Your task to perform on an android device: Go to Wikipedia Image 0: 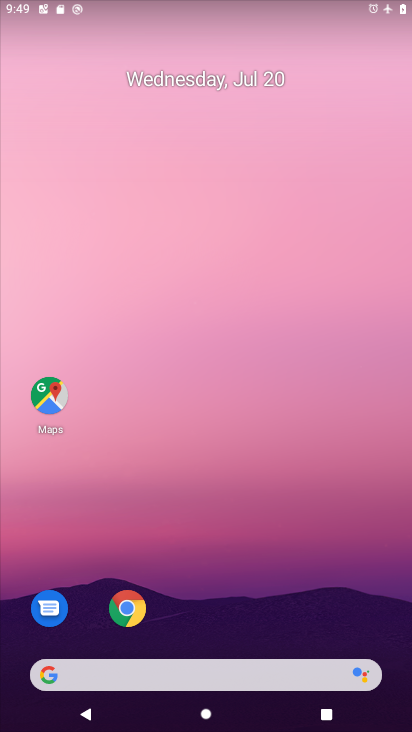
Step 0: click (122, 618)
Your task to perform on an android device: Go to Wikipedia Image 1: 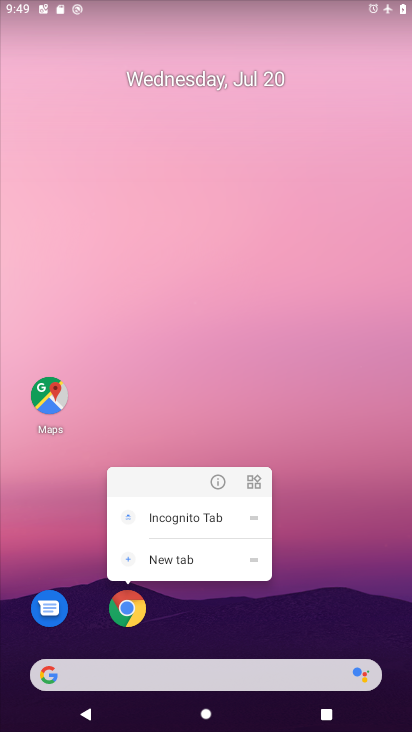
Step 1: click (126, 613)
Your task to perform on an android device: Go to Wikipedia Image 2: 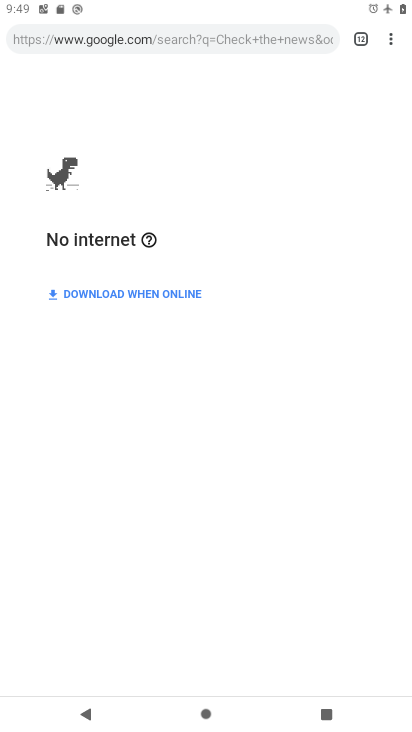
Step 2: click (410, 33)
Your task to perform on an android device: Go to Wikipedia Image 3: 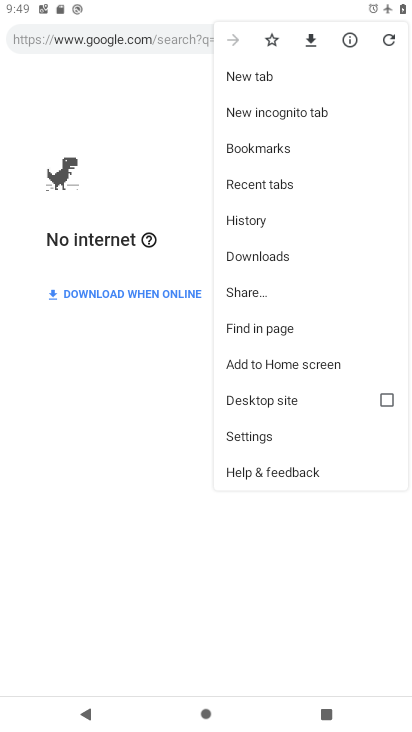
Step 3: click (285, 62)
Your task to perform on an android device: Go to Wikipedia Image 4: 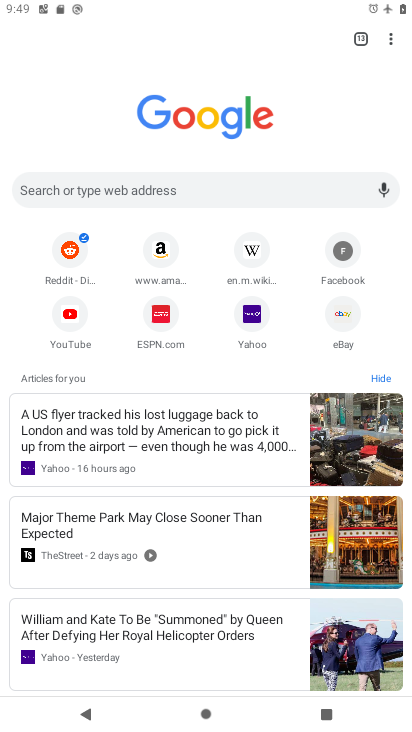
Step 4: click (261, 256)
Your task to perform on an android device: Go to Wikipedia Image 5: 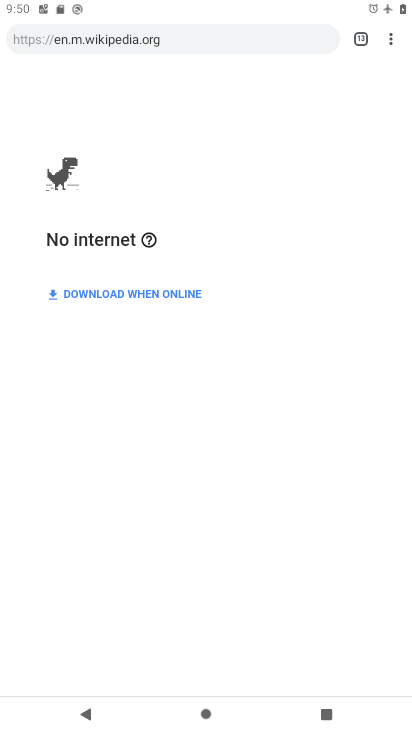
Step 5: task complete